Your task to perform on an android device: Open the calendar and show me this week's events? Image 0: 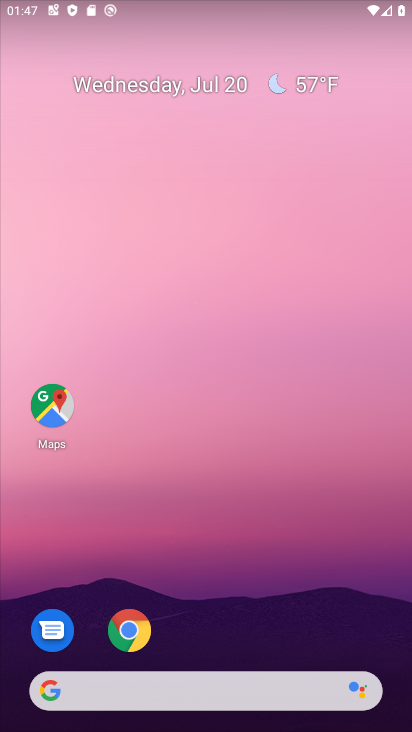
Step 0: drag from (264, 583) to (219, 74)
Your task to perform on an android device: Open the calendar and show me this week's events? Image 1: 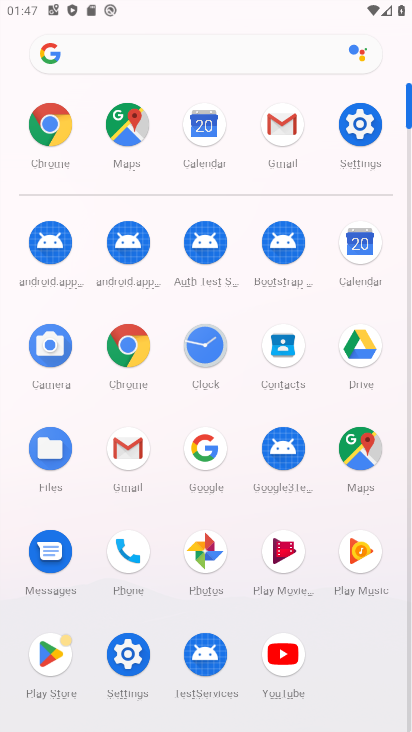
Step 1: click (222, 127)
Your task to perform on an android device: Open the calendar and show me this week's events? Image 2: 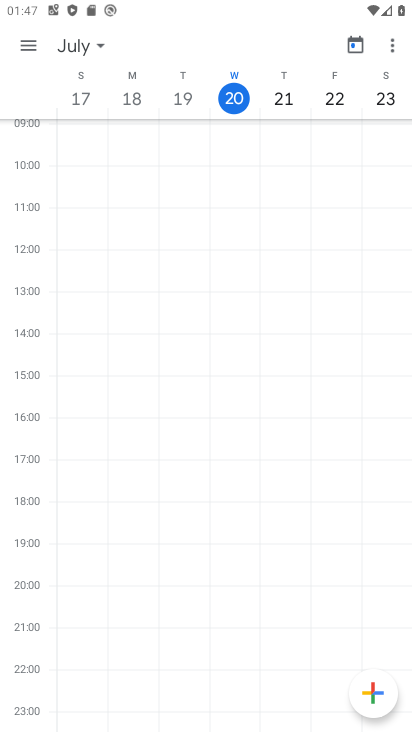
Step 2: task complete